Your task to perform on an android device: turn on the 24-hour format for clock Image 0: 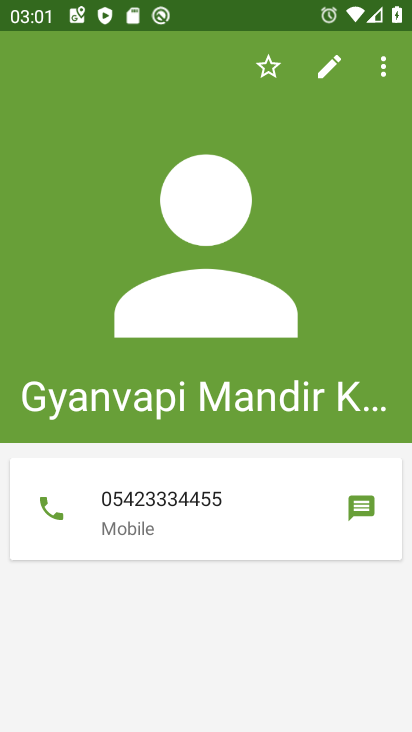
Step 0: press home button
Your task to perform on an android device: turn on the 24-hour format for clock Image 1: 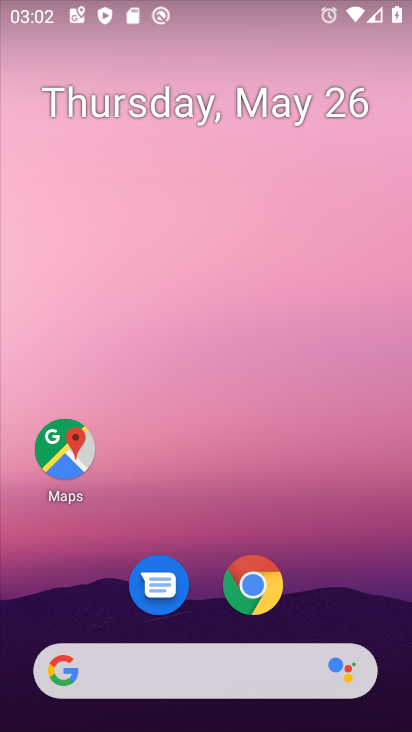
Step 1: drag from (210, 505) to (277, 42)
Your task to perform on an android device: turn on the 24-hour format for clock Image 2: 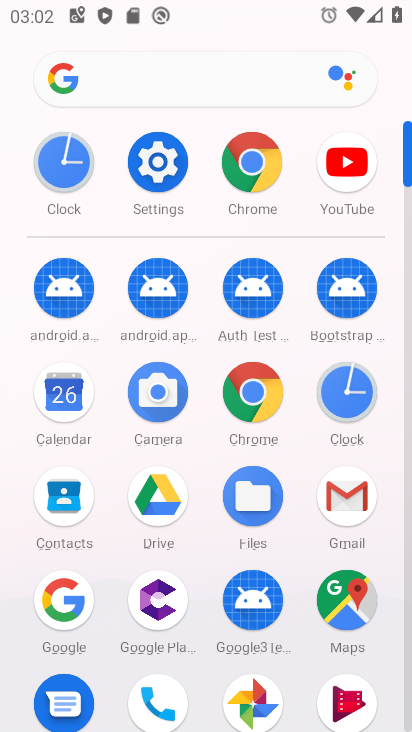
Step 2: click (71, 169)
Your task to perform on an android device: turn on the 24-hour format for clock Image 3: 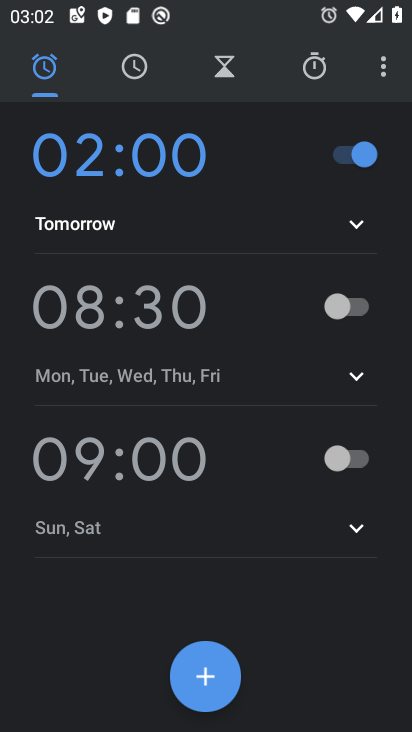
Step 3: click (380, 69)
Your task to perform on an android device: turn on the 24-hour format for clock Image 4: 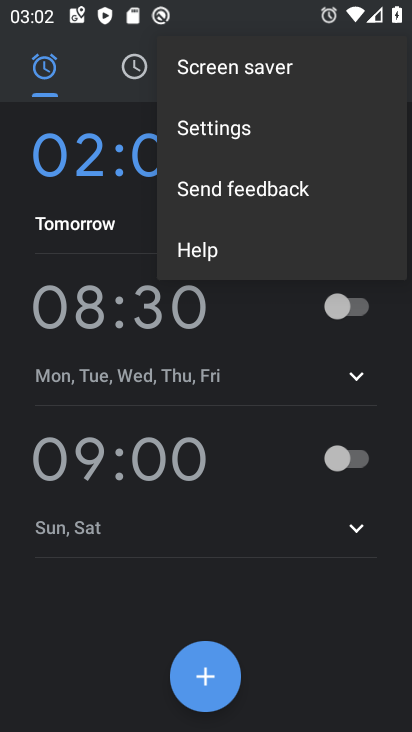
Step 4: click (268, 132)
Your task to perform on an android device: turn on the 24-hour format for clock Image 5: 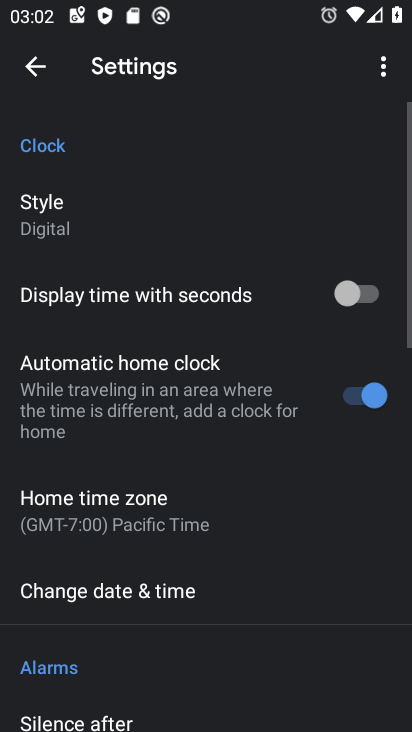
Step 5: drag from (294, 550) to (281, 227)
Your task to perform on an android device: turn on the 24-hour format for clock Image 6: 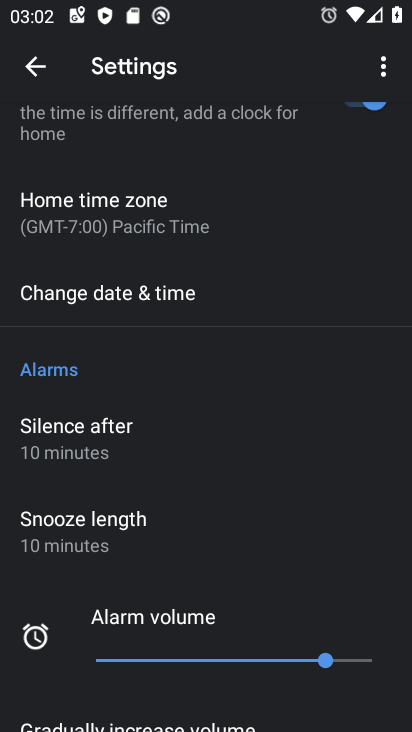
Step 6: click (281, 299)
Your task to perform on an android device: turn on the 24-hour format for clock Image 7: 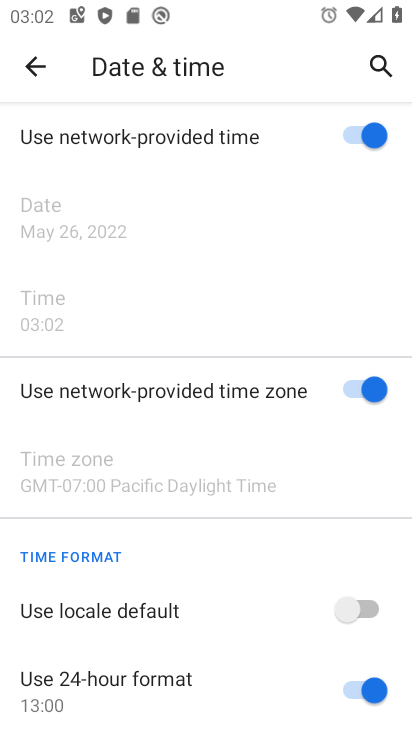
Step 7: task complete